Your task to perform on an android device: change timer sound Image 0: 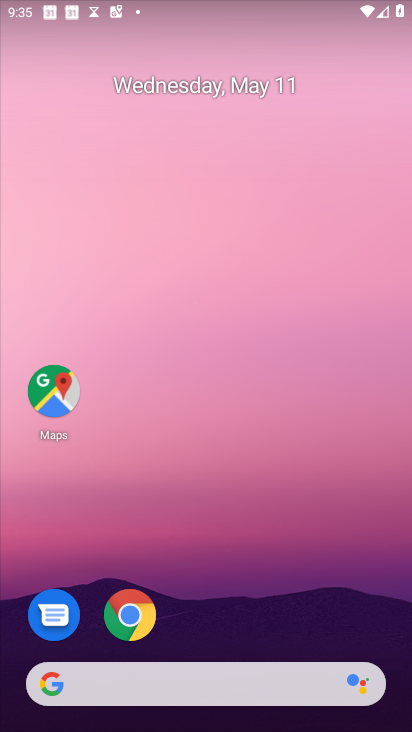
Step 0: drag from (78, 605) to (294, 78)
Your task to perform on an android device: change timer sound Image 1: 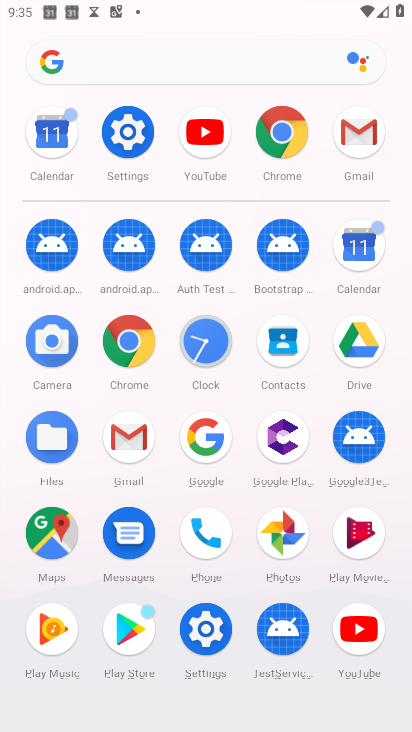
Step 1: click (218, 357)
Your task to perform on an android device: change timer sound Image 2: 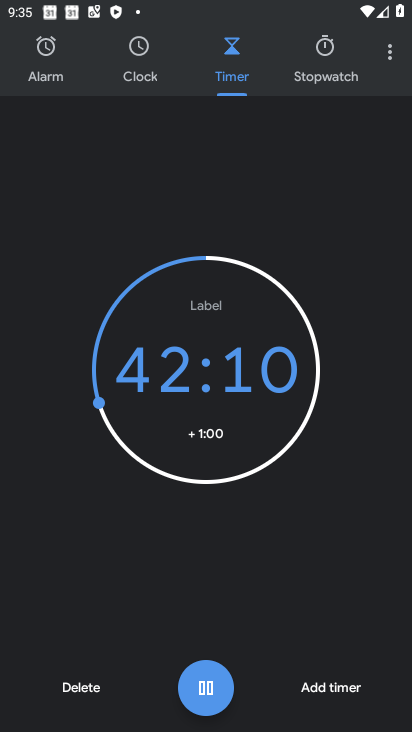
Step 2: click (388, 46)
Your task to perform on an android device: change timer sound Image 3: 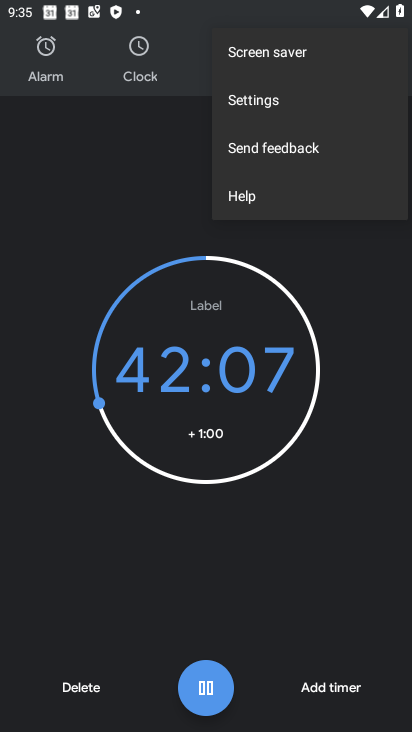
Step 3: click (279, 107)
Your task to perform on an android device: change timer sound Image 4: 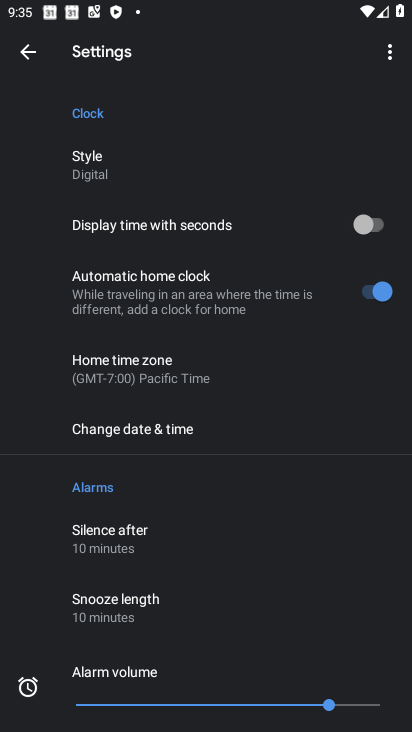
Step 4: drag from (131, 642) to (274, 179)
Your task to perform on an android device: change timer sound Image 5: 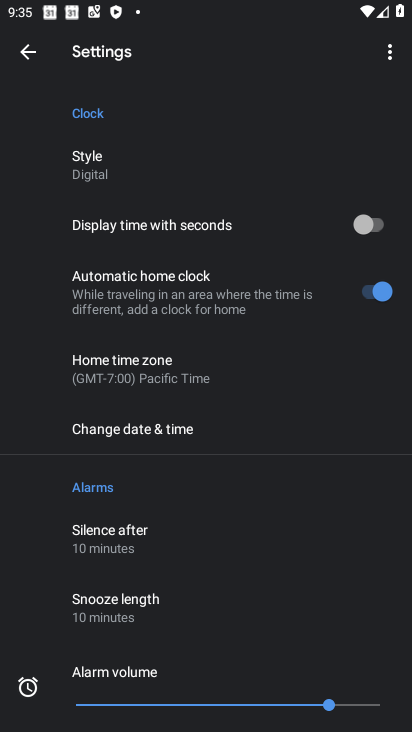
Step 5: drag from (35, 534) to (231, 138)
Your task to perform on an android device: change timer sound Image 6: 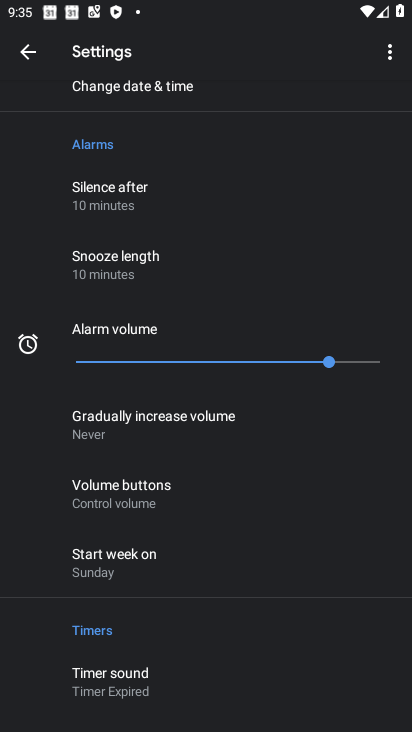
Step 6: click (82, 676)
Your task to perform on an android device: change timer sound Image 7: 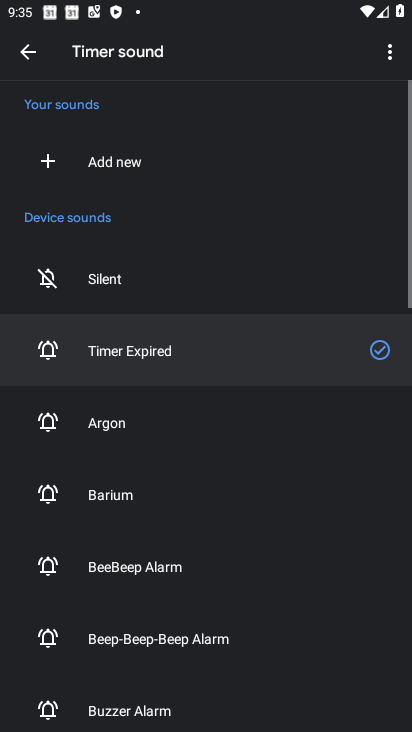
Step 7: click (103, 433)
Your task to perform on an android device: change timer sound Image 8: 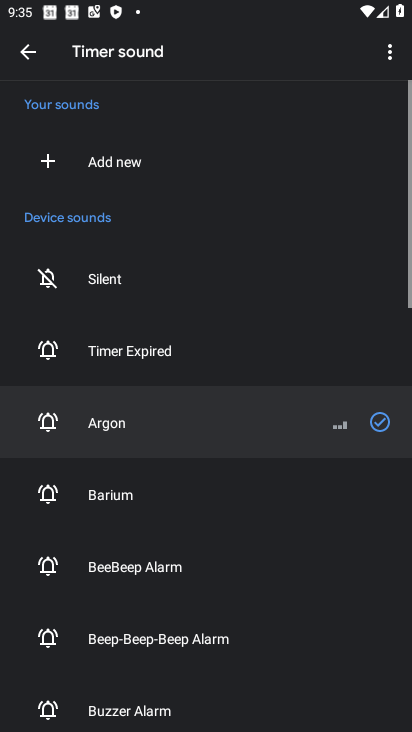
Step 8: task complete